Your task to perform on an android device: show emergency info Image 0: 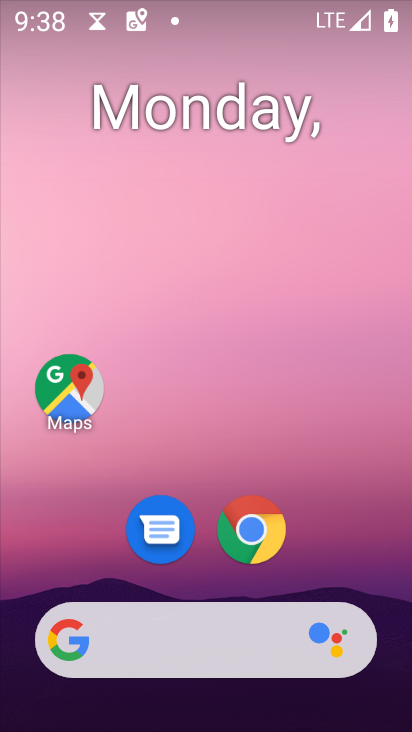
Step 0: drag from (226, 673) to (209, 144)
Your task to perform on an android device: show emergency info Image 1: 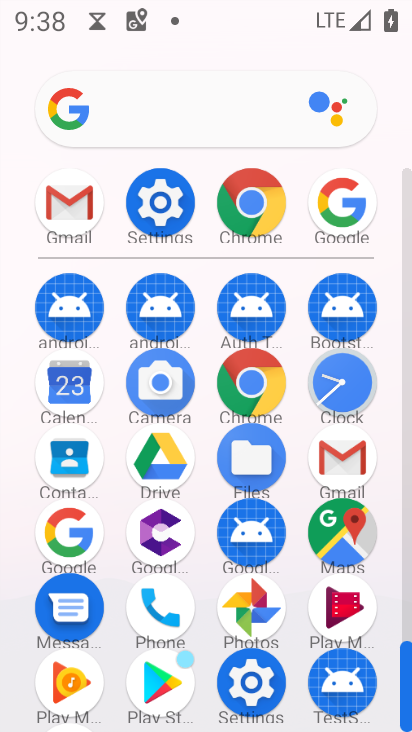
Step 1: click (162, 211)
Your task to perform on an android device: show emergency info Image 2: 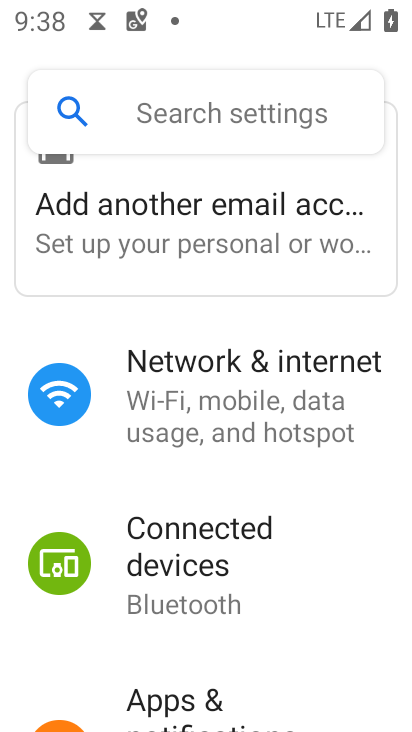
Step 2: drag from (240, 584) to (154, 281)
Your task to perform on an android device: show emergency info Image 3: 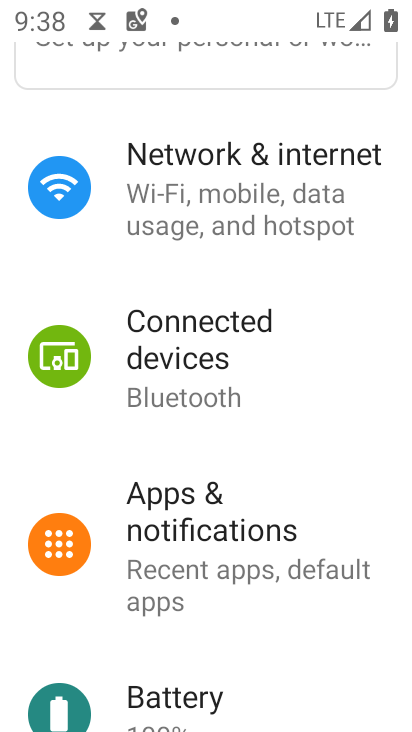
Step 3: drag from (216, 477) to (186, 294)
Your task to perform on an android device: show emergency info Image 4: 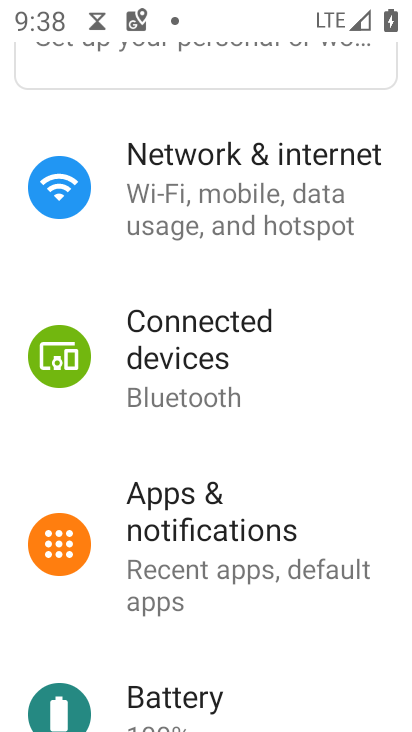
Step 4: drag from (247, 457) to (207, 129)
Your task to perform on an android device: show emergency info Image 5: 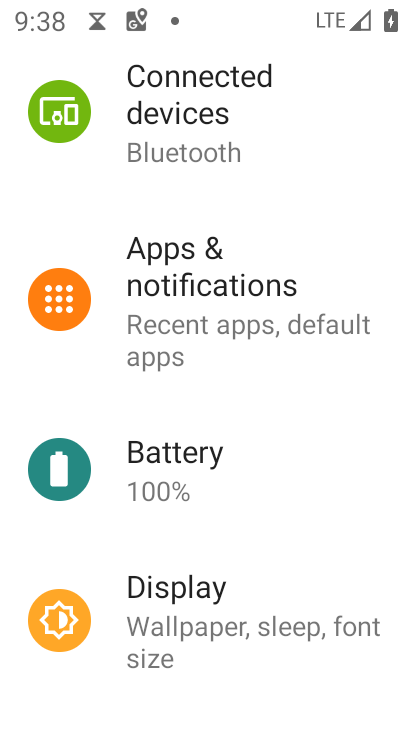
Step 5: drag from (232, 379) to (196, 134)
Your task to perform on an android device: show emergency info Image 6: 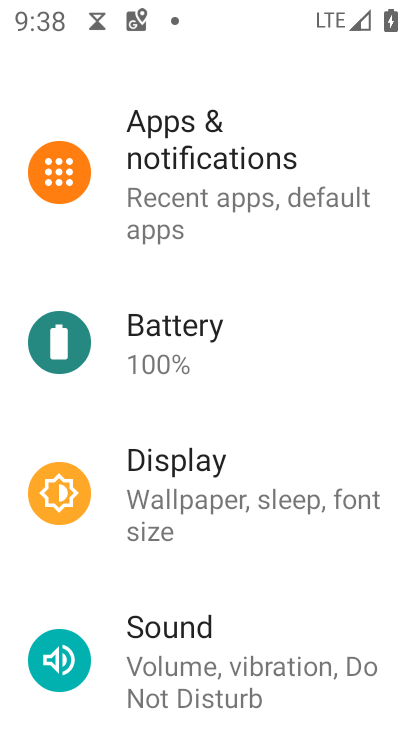
Step 6: drag from (148, 493) to (116, 177)
Your task to perform on an android device: show emergency info Image 7: 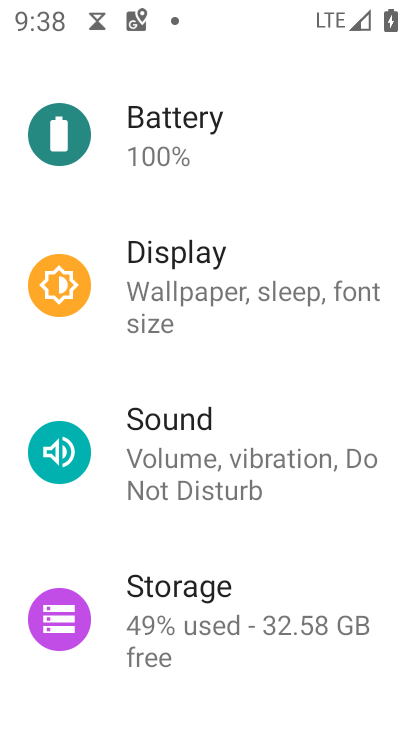
Step 7: drag from (198, 432) to (178, 145)
Your task to perform on an android device: show emergency info Image 8: 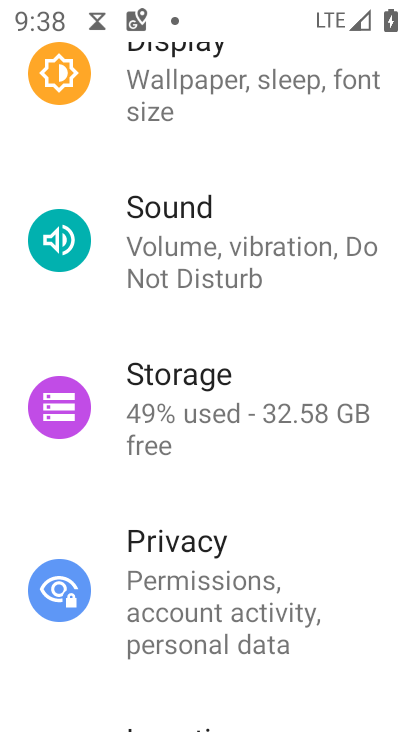
Step 8: drag from (228, 451) to (202, 190)
Your task to perform on an android device: show emergency info Image 9: 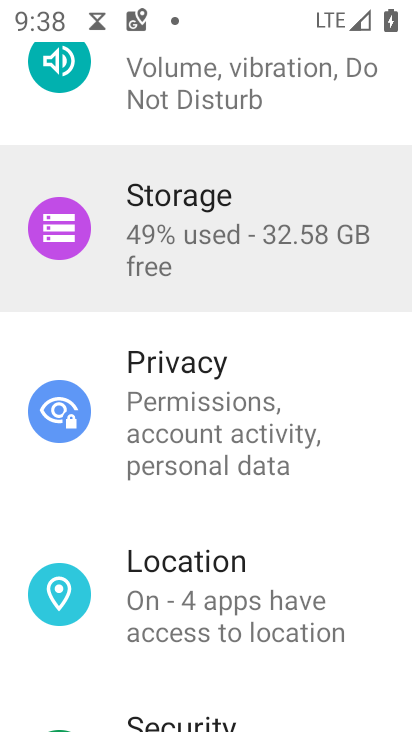
Step 9: drag from (213, 455) to (213, 148)
Your task to perform on an android device: show emergency info Image 10: 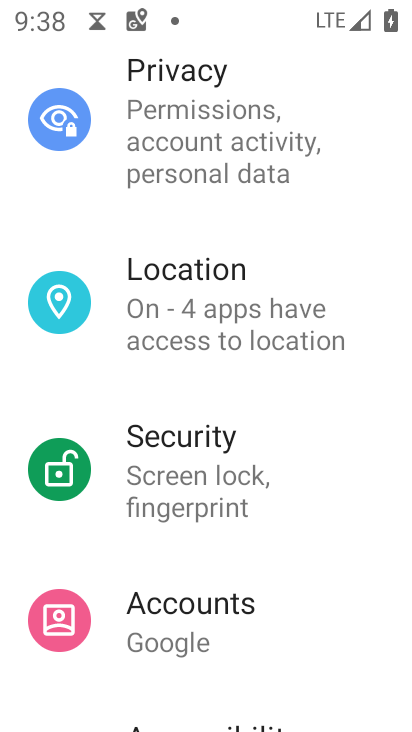
Step 10: drag from (237, 427) to (243, 183)
Your task to perform on an android device: show emergency info Image 11: 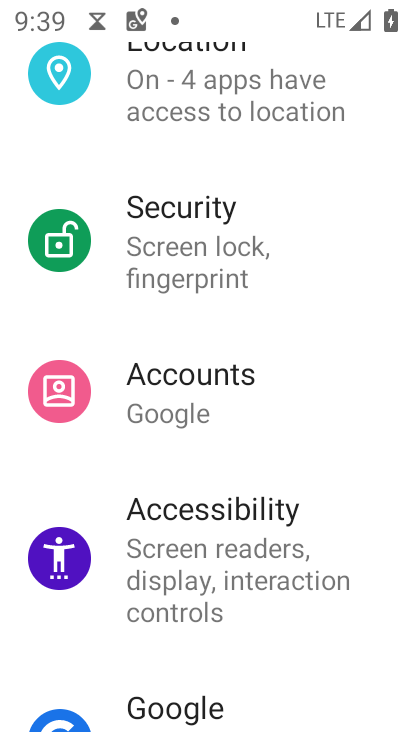
Step 11: drag from (246, 520) to (209, 292)
Your task to perform on an android device: show emergency info Image 12: 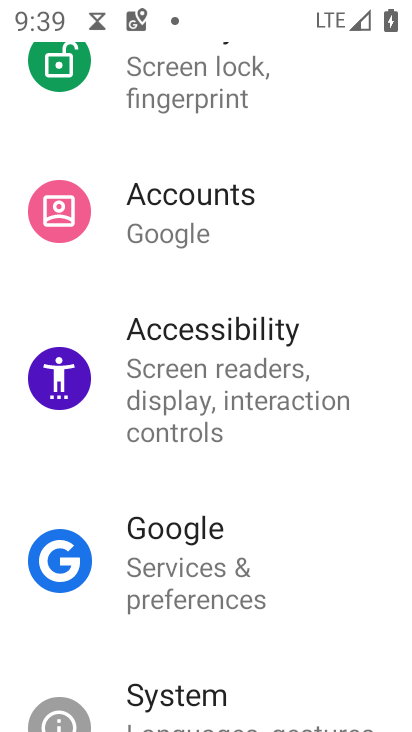
Step 12: drag from (241, 453) to (227, 222)
Your task to perform on an android device: show emergency info Image 13: 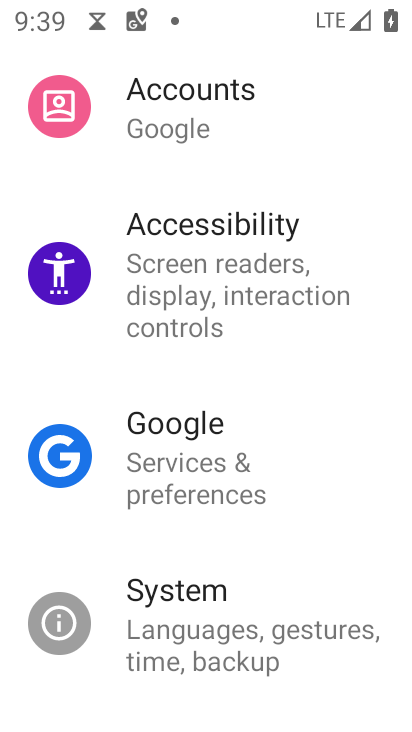
Step 13: drag from (231, 472) to (209, 192)
Your task to perform on an android device: show emergency info Image 14: 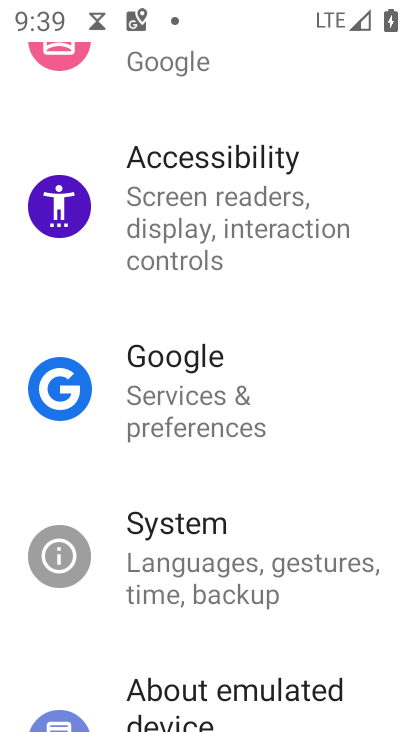
Step 14: drag from (260, 542) to (248, 119)
Your task to perform on an android device: show emergency info Image 15: 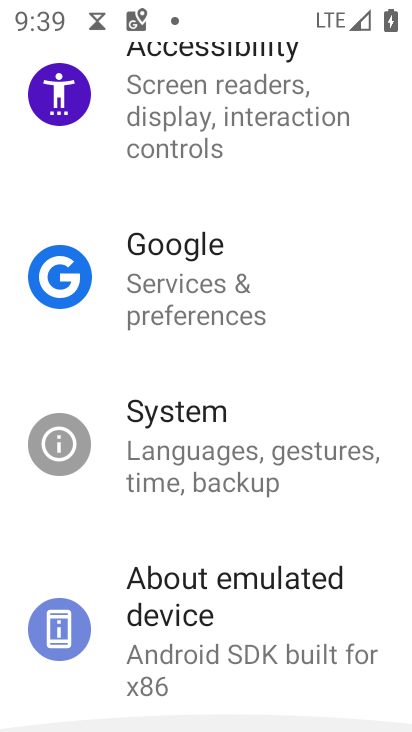
Step 15: drag from (219, 420) to (217, 179)
Your task to perform on an android device: show emergency info Image 16: 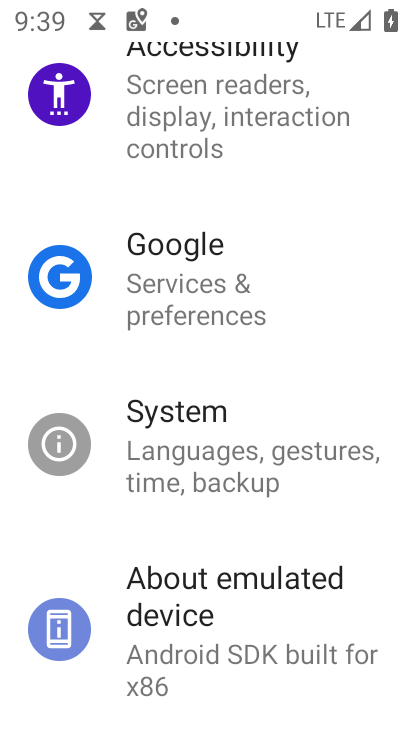
Step 16: click (210, 645)
Your task to perform on an android device: show emergency info Image 17: 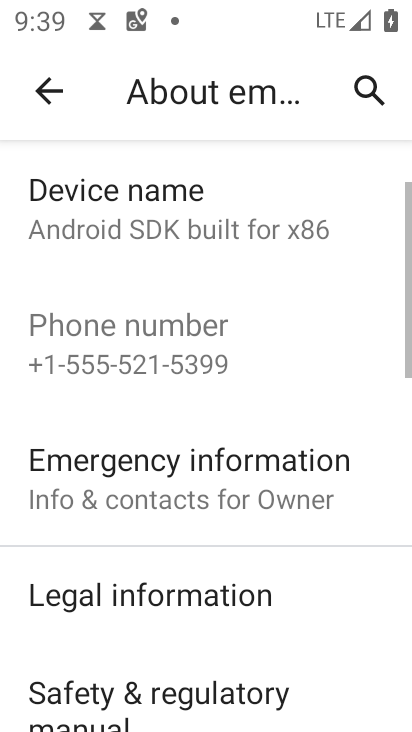
Step 17: click (180, 485)
Your task to perform on an android device: show emergency info Image 18: 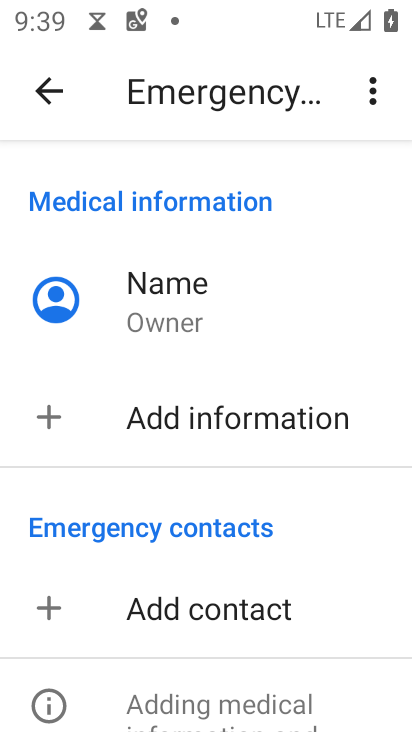
Step 18: task complete